Your task to perform on an android device: open chrome privacy settings Image 0: 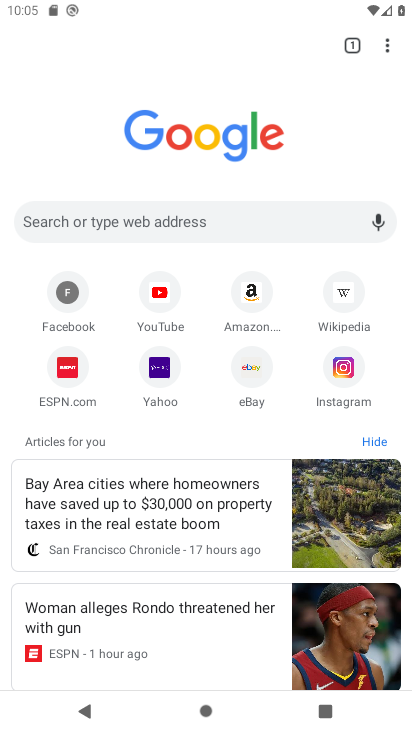
Step 0: click (392, 45)
Your task to perform on an android device: open chrome privacy settings Image 1: 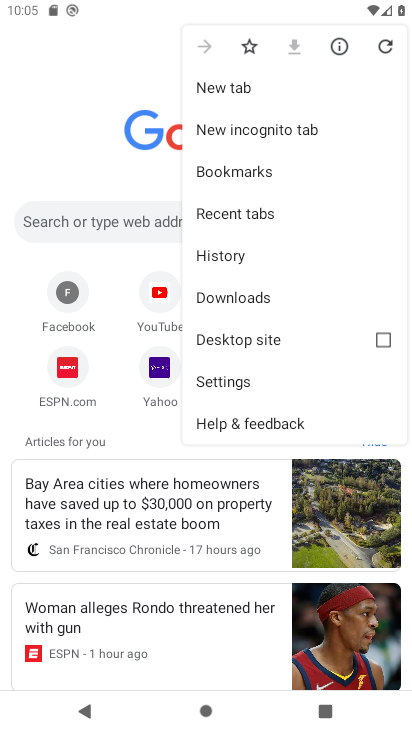
Step 1: click (254, 382)
Your task to perform on an android device: open chrome privacy settings Image 2: 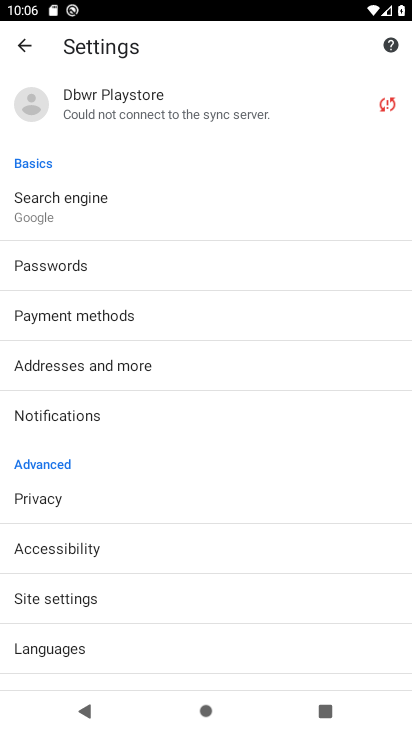
Step 2: click (90, 504)
Your task to perform on an android device: open chrome privacy settings Image 3: 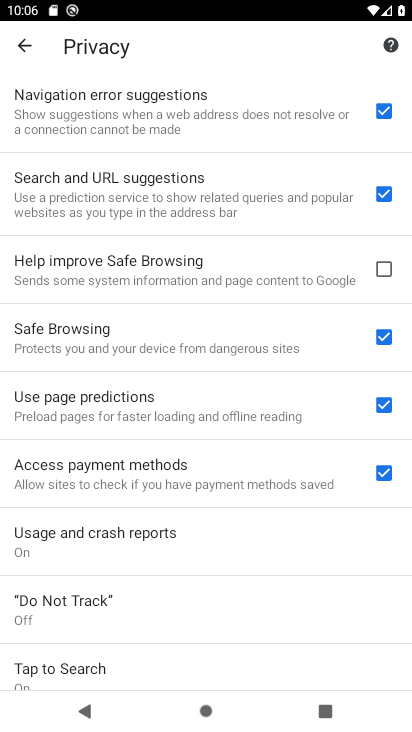
Step 3: task complete